Your task to perform on an android device: delete location history Image 0: 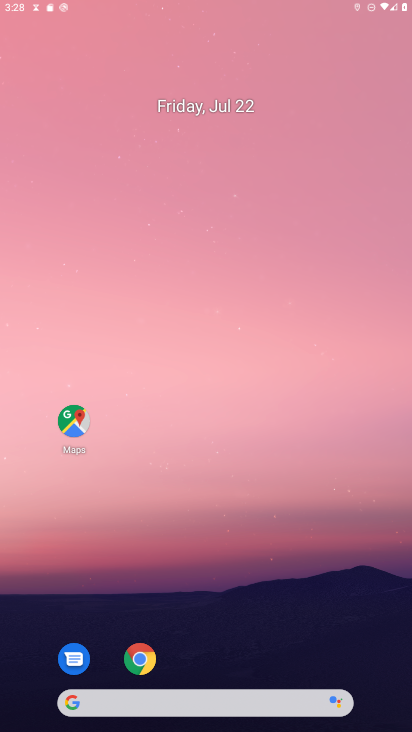
Step 0: drag from (91, 126) to (72, 30)
Your task to perform on an android device: delete location history Image 1: 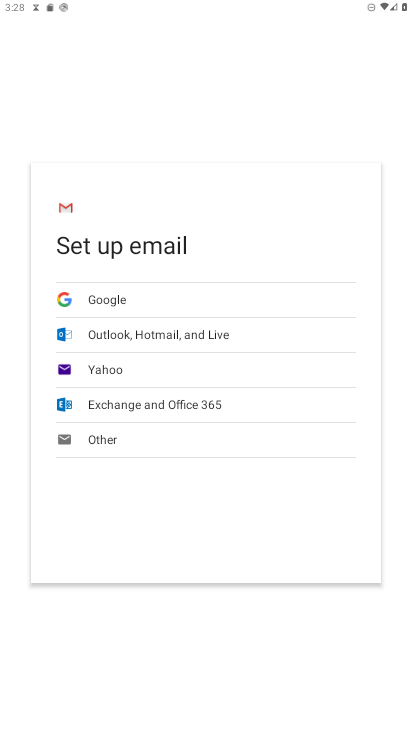
Step 1: press home button
Your task to perform on an android device: delete location history Image 2: 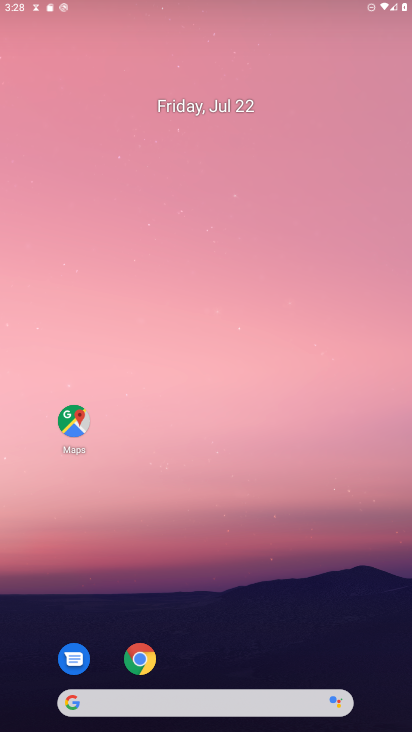
Step 2: drag from (294, 617) to (96, 22)
Your task to perform on an android device: delete location history Image 3: 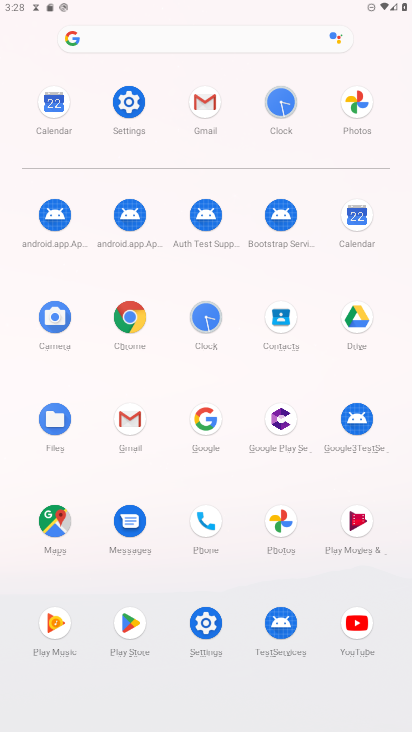
Step 3: click (51, 531)
Your task to perform on an android device: delete location history Image 4: 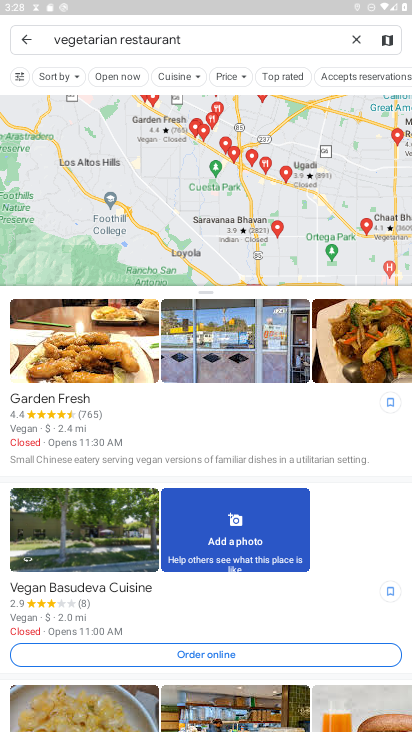
Step 4: click (32, 38)
Your task to perform on an android device: delete location history Image 5: 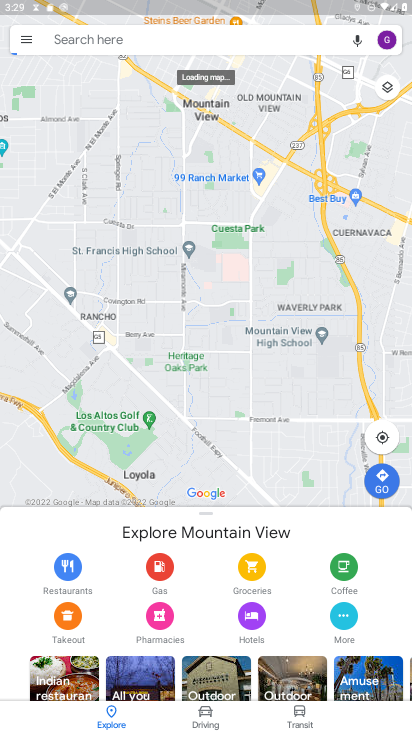
Step 5: click (25, 45)
Your task to perform on an android device: delete location history Image 6: 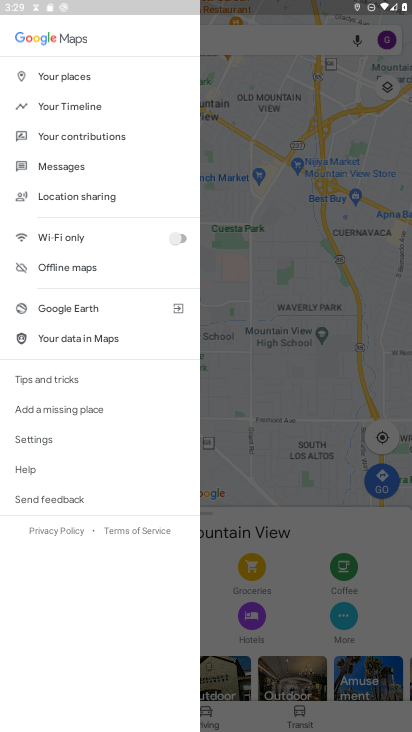
Step 6: click (70, 112)
Your task to perform on an android device: delete location history Image 7: 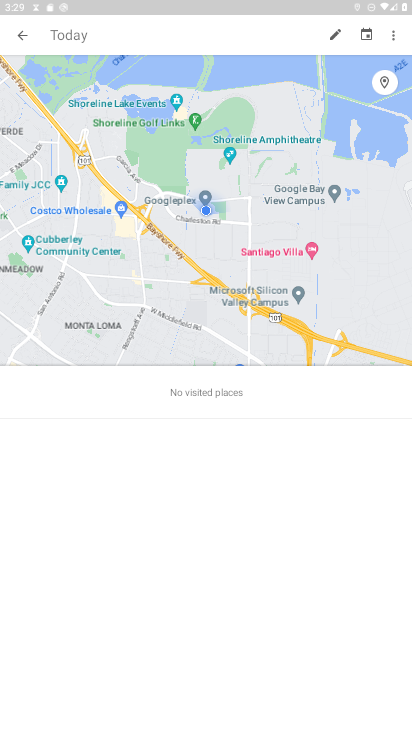
Step 7: click (386, 40)
Your task to perform on an android device: delete location history Image 8: 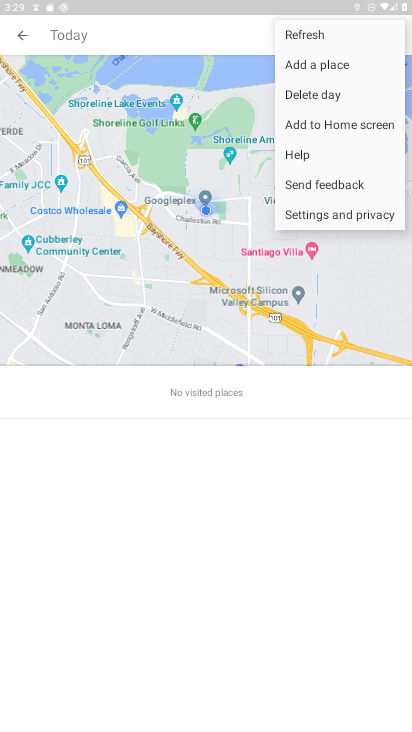
Step 8: click (304, 206)
Your task to perform on an android device: delete location history Image 9: 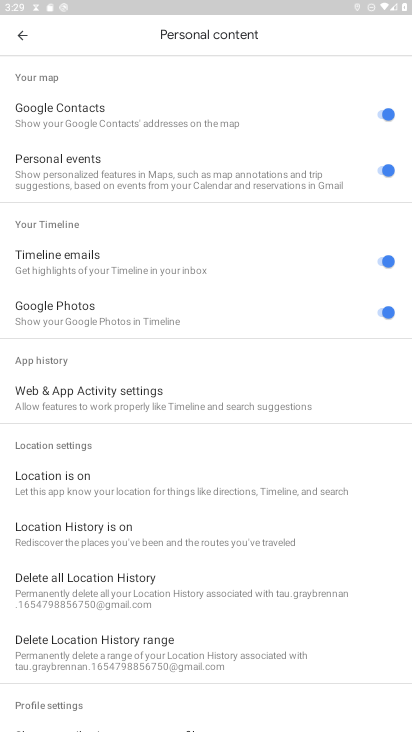
Step 9: drag from (209, 613) to (287, 167)
Your task to perform on an android device: delete location history Image 10: 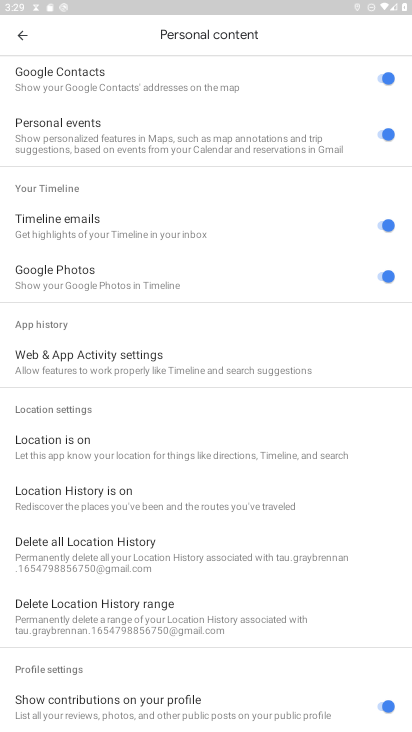
Step 10: click (93, 544)
Your task to perform on an android device: delete location history Image 11: 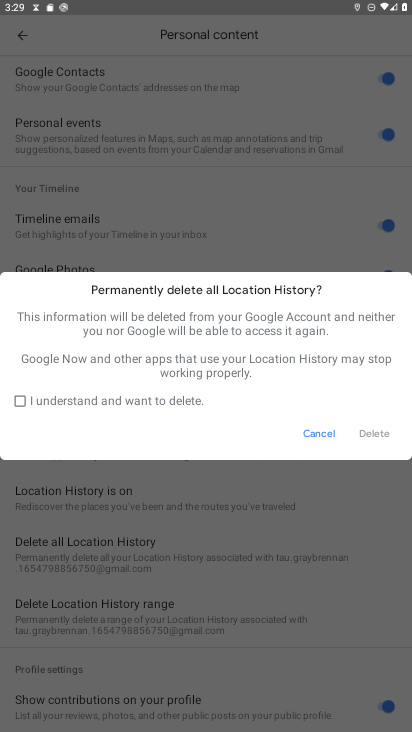
Step 11: click (26, 406)
Your task to perform on an android device: delete location history Image 12: 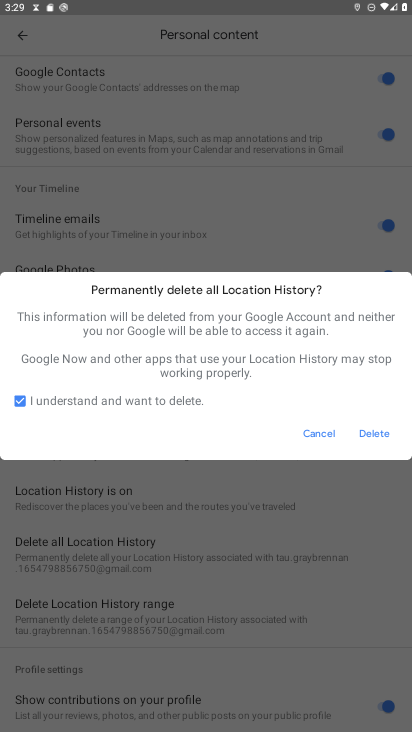
Step 12: click (365, 433)
Your task to perform on an android device: delete location history Image 13: 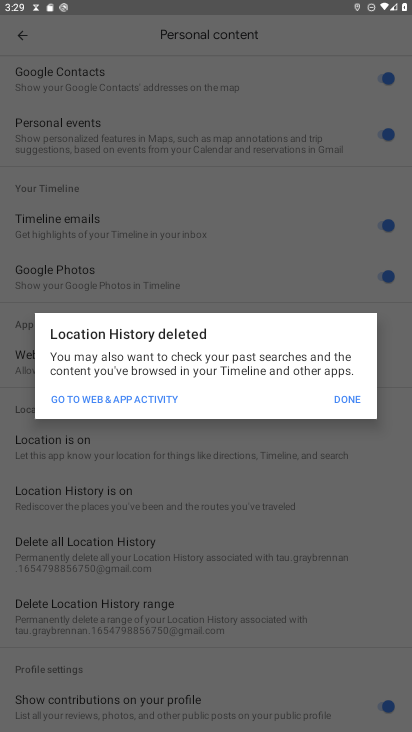
Step 13: click (349, 400)
Your task to perform on an android device: delete location history Image 14: 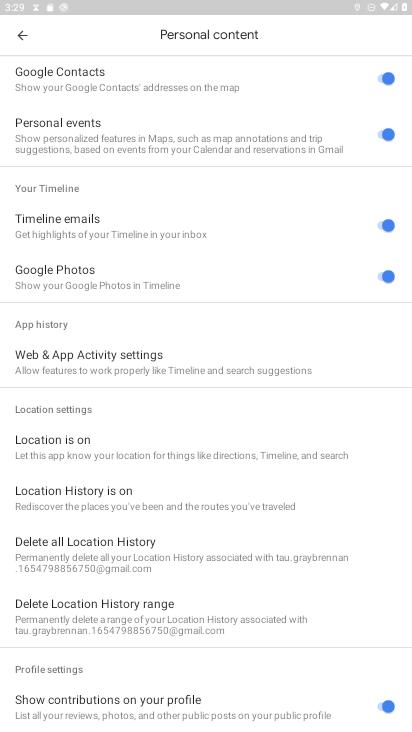
Step 14: task complete